Your task to perform on an android device: turn on wifi Image 0: 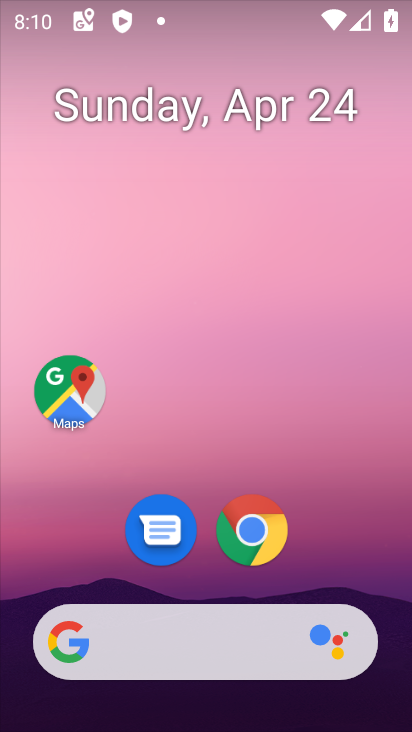
Step 0: drag from (207, 16) to (314, 519)
Your task to perform on an android device: turn on wifi Image 1: 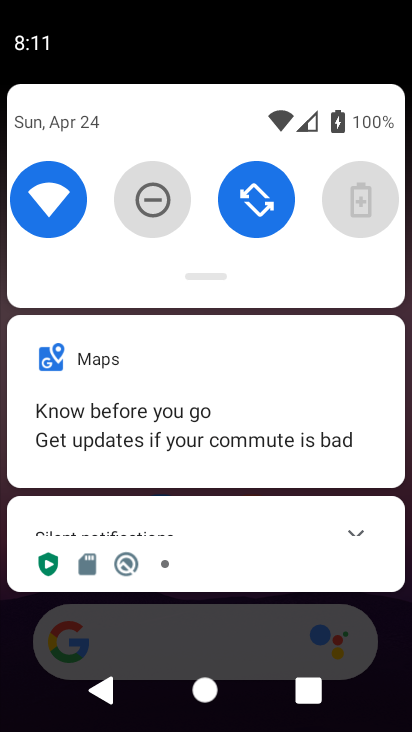
Step 1: task complete